Your task to perform on an android device: Search for "macbook pro 13 inch" on walmart.com, select the first entry, add it to the cart, then select checkout. Image 0: 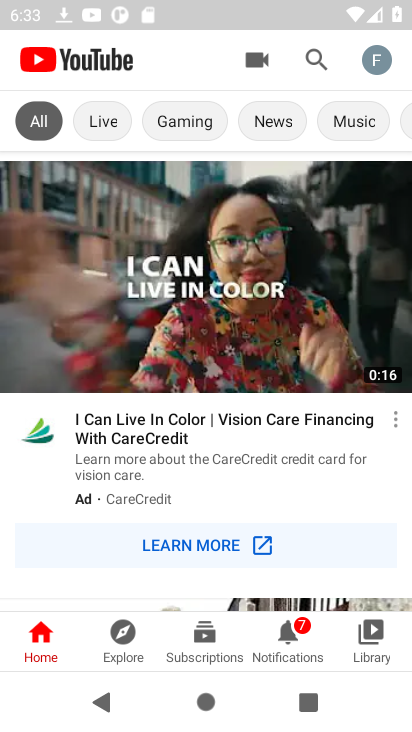
Step 0: press home button
Your task to perform on an android device: Search for "macbook pro 13 inch" on walmart.com, select the first entry, add it to the cart, then select checkout. Image 1: 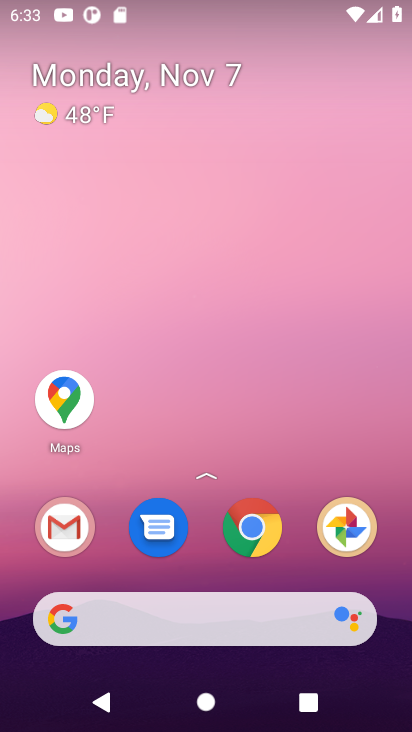
Step 1: click (274, 535)
Your task to perform on an android device: Search for "macbook pro 13 inch" on walmart.com, select the first entry, add it to the cart, then select checkout. Image 2: 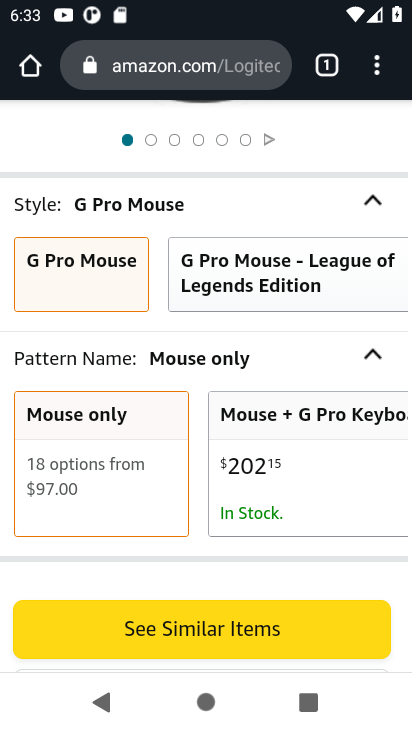
Step 2: click (194, 69)
Your task to perform on an android device: Search for "macbook pro 13 inch" on walmart.com, select the first entry, add it to the cart, then select checkout. Image 3: 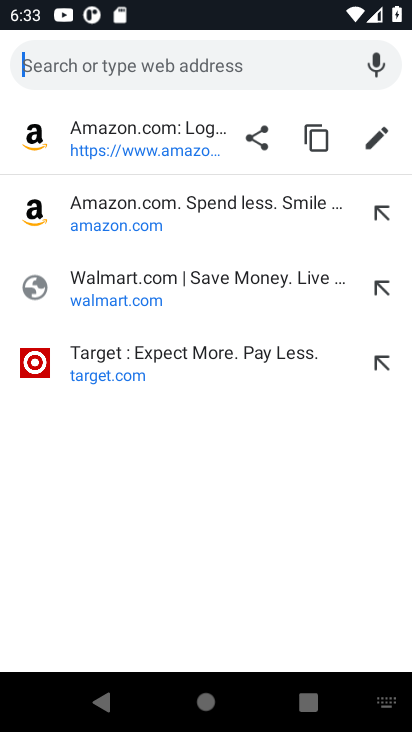
Step 3: type "walmart"
Your task to perform on an android device: Search for "macbook pro 13 inch" on walmart.com, select the first entry, add it to the cart, then select checkout. Image 4: 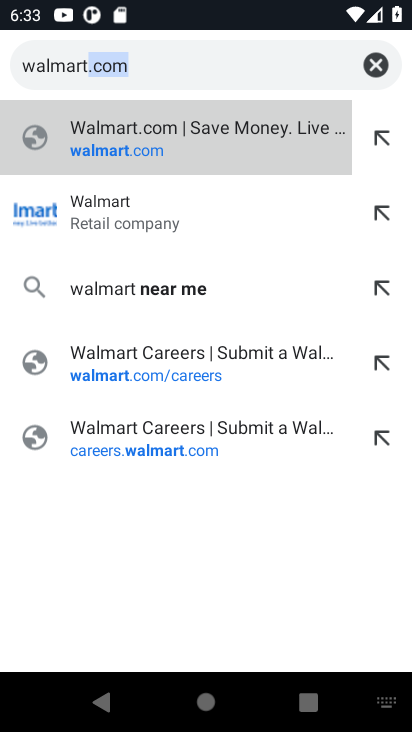
Step 4: click (204, 147)
Your task to perform on an android device: Search for "macbook pro 13 inch" on walmart.com, select the first entry, add it to the cart, then select checkout. Image 5: 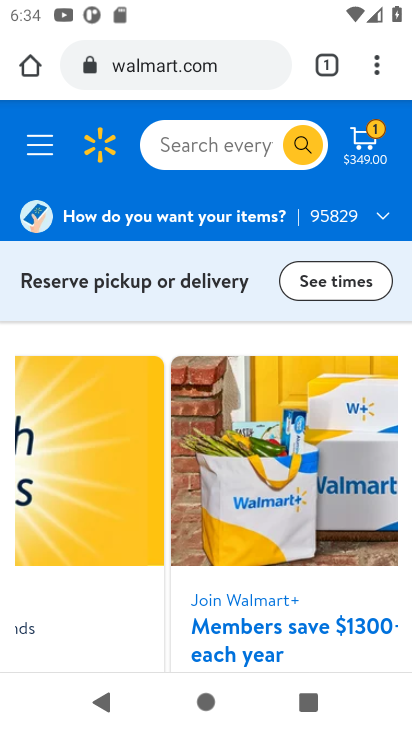
Step 5: click (198, 152)
Your task to perform on an android device: Search for "macbook pro 13 inch" on walmart.com, select the first entry, add it to the cart, then select checkout. Image 6: 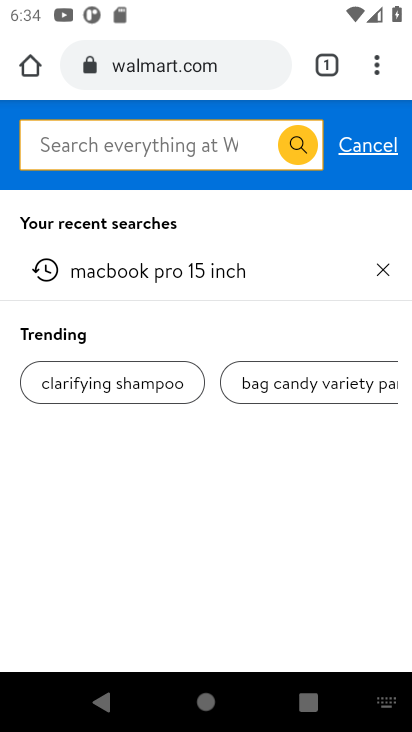
Step 6: type "macbook pro 13 inch"
Your task to perform on an android device: Search for "macbook pro 13 inch" on walmart.com, select the first entry, add it to the cart, then select checkout. Image 7: 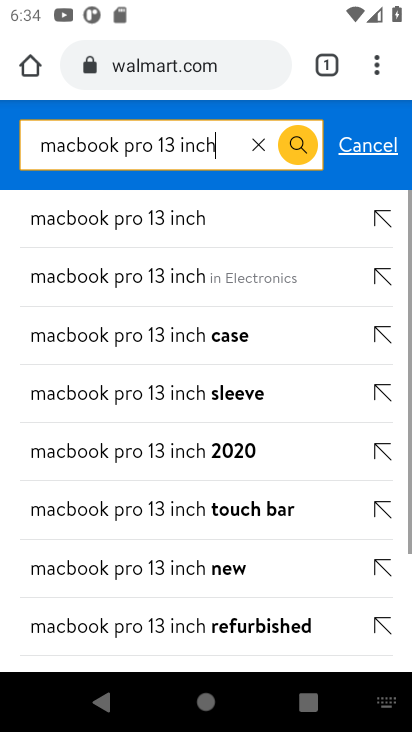
Step 7: press enter
Your task to perform on an android device: Search for "macbook pro 13 inch" on walmart.com, select the first entry, add it to the cart, then select checkout. Image 8: 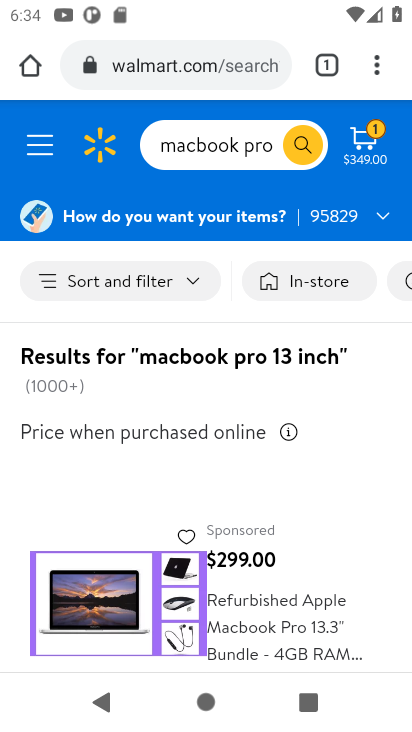
Step 8: press enter
Your task to perform on an android device: Search for "macbook pro 13 inch" on walmart.com, select the first entry, add it to the cart, then select checkout. Image 9: 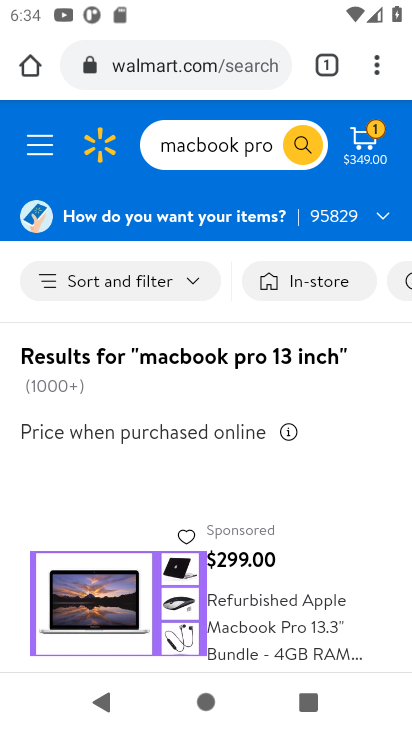
Step 9: click (222, 583)
Your task to perform on an android device: Search for "macbook pro 13 inch" on walmart.com, select the first entry, add it to the cart, then select checkout. Image 10: 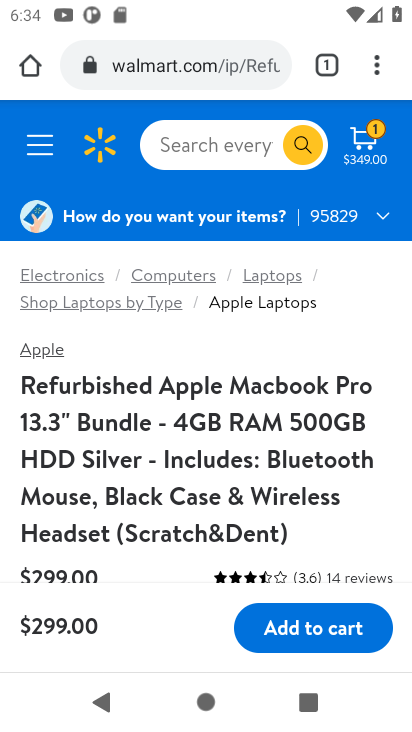
Step 10: click (301, 633)
Your task to perform on an android device: Search for "macbook pro 13 inch" on walmart.com, select the first entry, add it to the cart, then select checkout. Image 11: 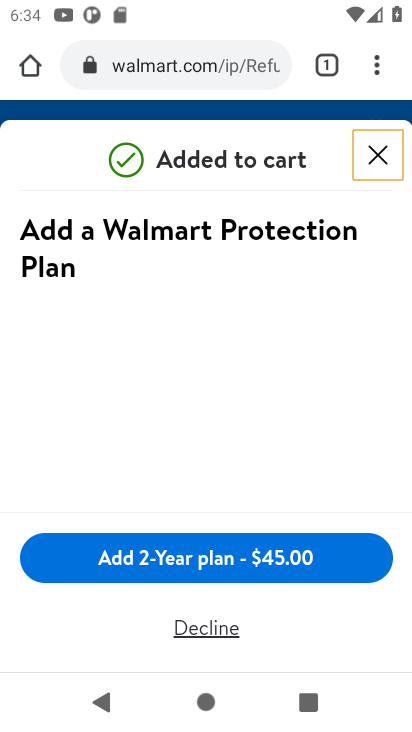
Step 11: click (373, 175)
Your task to perform on an android device: Search for "macbook pro 13 inch" on walmart.com, select the first entry, add it to the cart, then select checkout. Image 12: 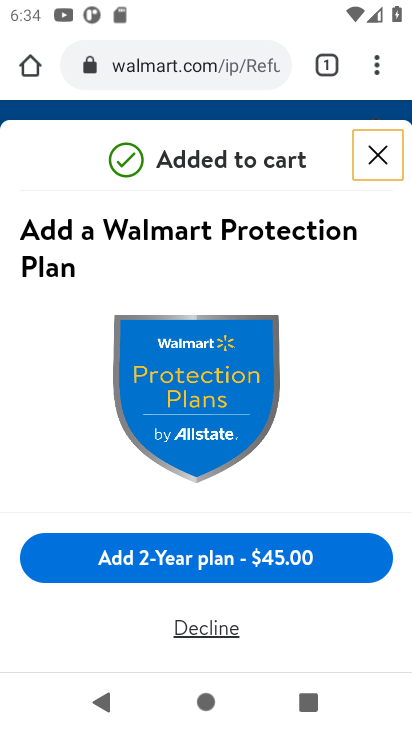
Step 12: click (379, 156)
Your task to perform on an android device: Search for "macbook pro 13 inch" on walmart.com, select the first entry, add it to the cart, then select checkout. Image 13: 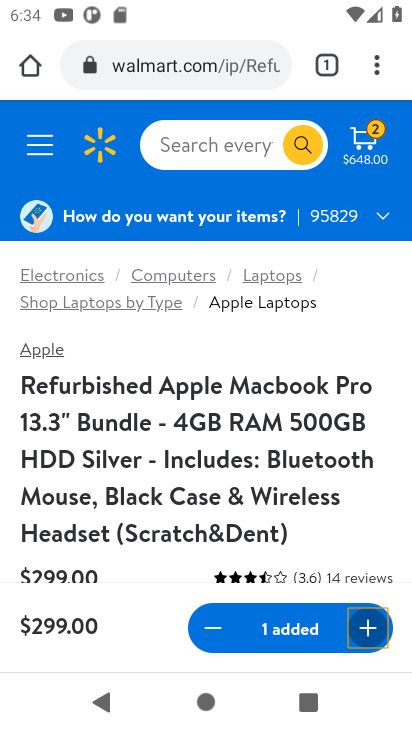
Step 13: click (363, 145)
Your task to perform on an android device: Search for "macbook pro 13 inch" on walmart.com, select the first entry, add it to the cart, then select checkout. Image 14: 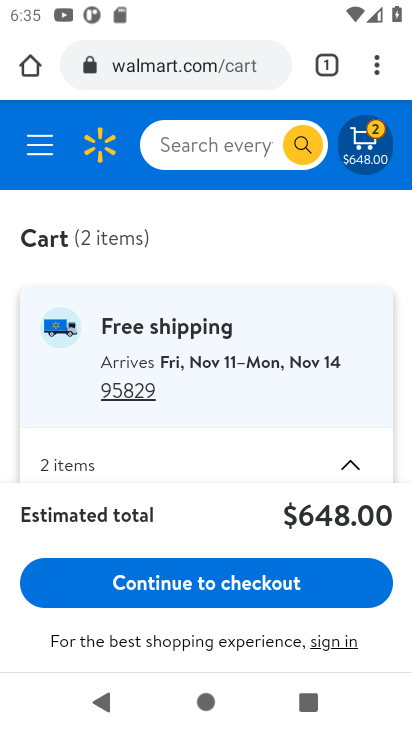
Step 14: click (237, 577)
Your task to perform on an android device: Search for "macbook pro 13 inch" on walmart.com, select the first entry, add it to the cart, then select checkout. Image 15: 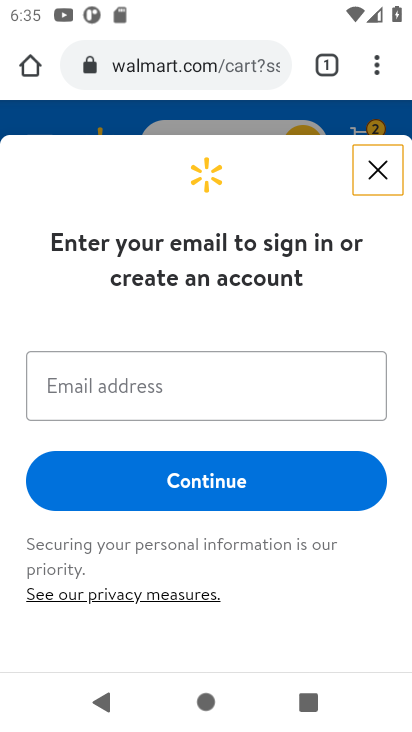
Step 15: task complete